Your task to perform on an android device: toggle location history Image 0: 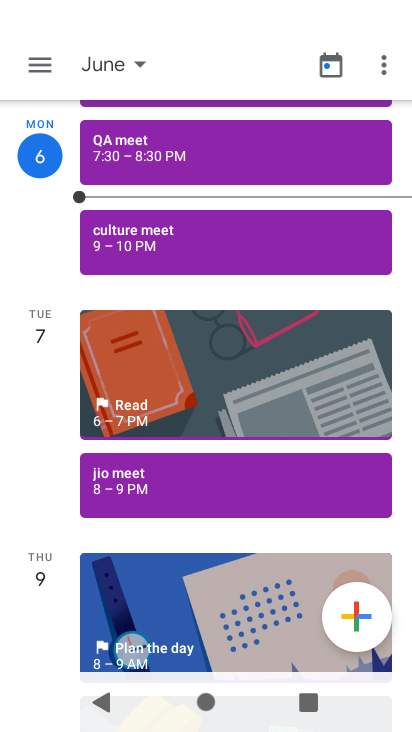
Step 0: press home button
Your task to perform on an android device: toggle location history Image 1: 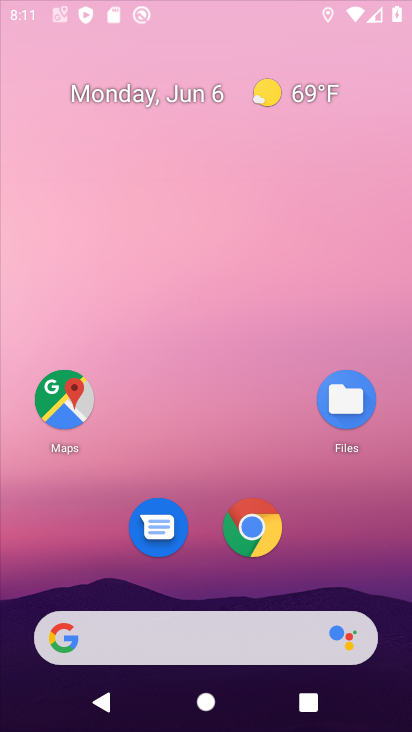
Step 1: drag from (202, 567) to (184, 66)
Your task to perform on an android device: toggle location history Image 2: 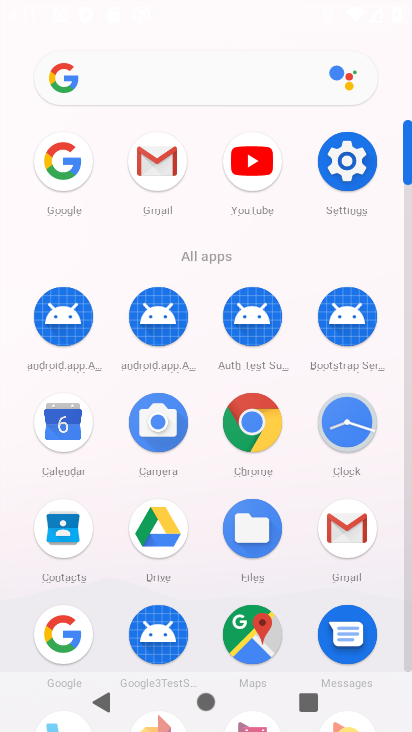
Step 2: click (349, 158)
Your task to perform on an android device: toggle location history Image 3: 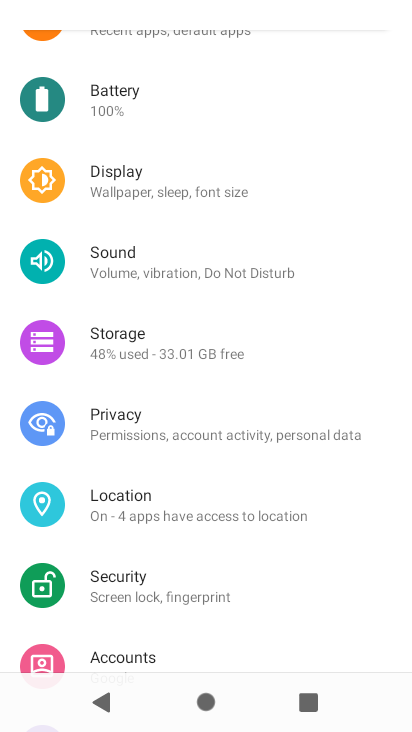
Step 3: click (160, 512)
Your task to perform on an android device: toggle location history Image 4: 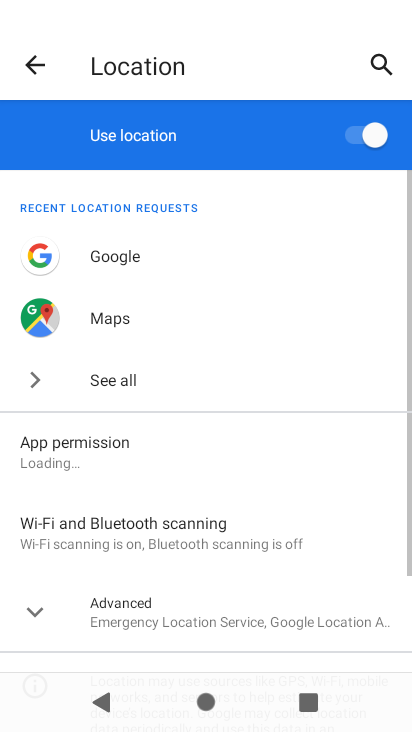
Step 4: click (171, 622)
Your task to perform on an android device: toggle location history Image 5: 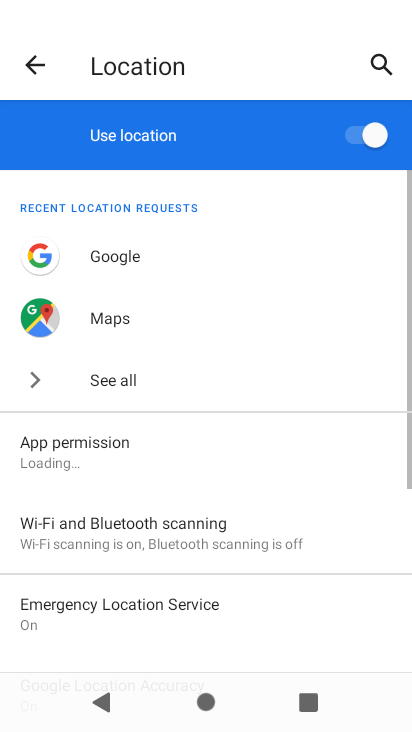
Step 5: drag from (206, 571) to (195, 216)
Your task to perform on an android device: toggle location history Image 6: 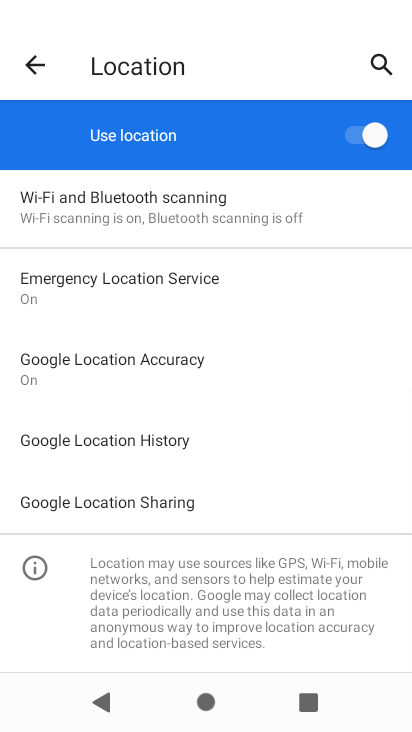
Step 6: click (125, 446)
Your task to perform on an android device: toggle location history Image 7: 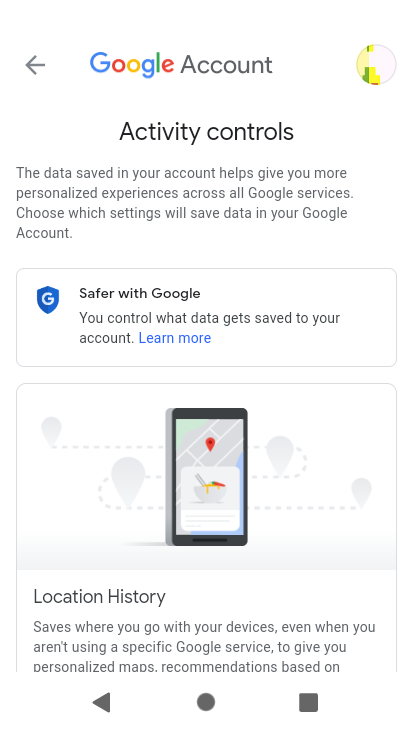
Step 7: drag from (312, 530) to (327, 97)
Your task to perform on an android device: toggle location history Image 8: 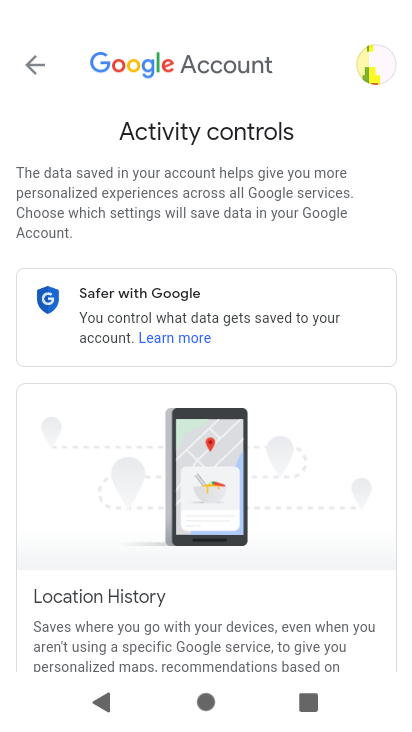
Step 8: drag from (288, 552) to (285, 164)
Your task to perform on an android device: toggle location history Image 9: 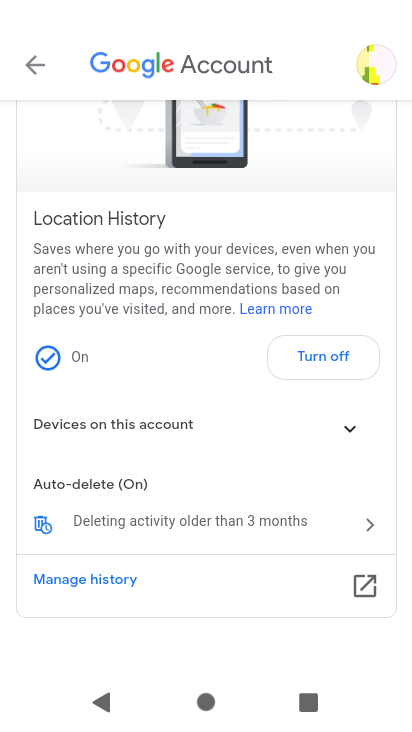
Step 9: click (325, 353)
Your task to perform on an android device: toggle location history Image 10: 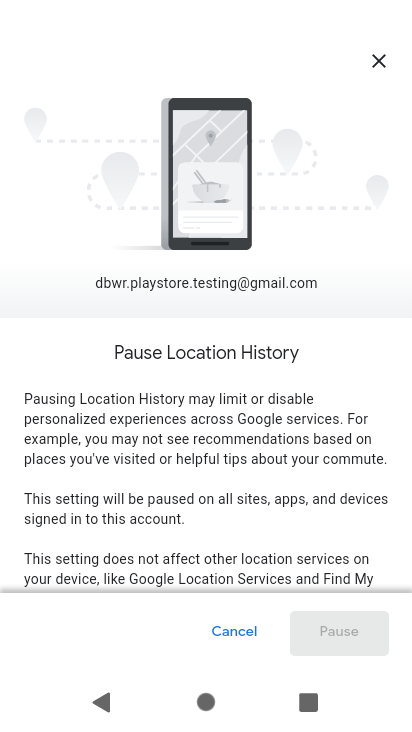
Step 10: drag from (307, 523) to (297, 8)
Your task to perform on an android device: toggle location history Image 11: 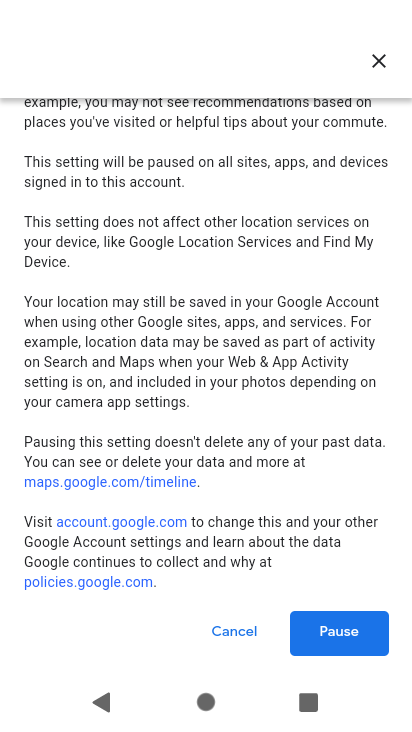
Step 11: click (332, 619)
Your task to perform on an android device: toggle location history Image 12: 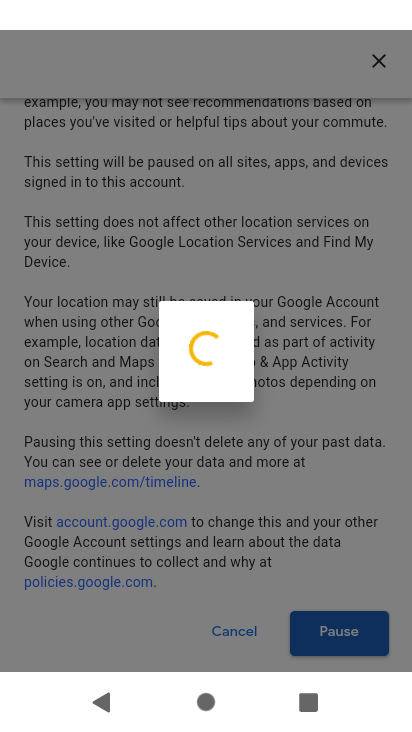
Step 12: click (336, 631)
Your task to perform on an android device: toggle location history Image 13: 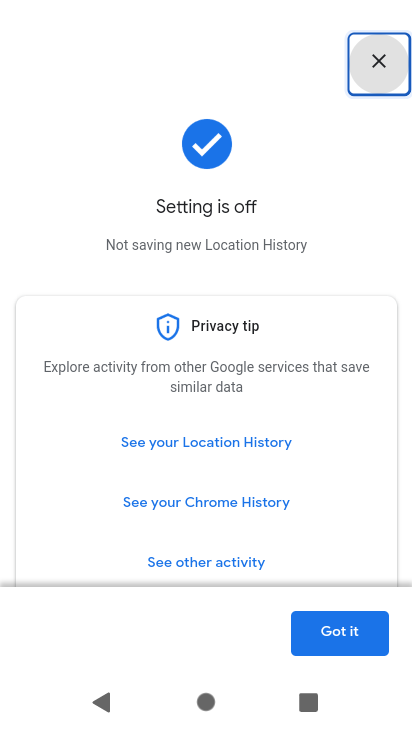
Step 13: click (336, 631)
Your task to perform on an android device: toggle location history Image 14: 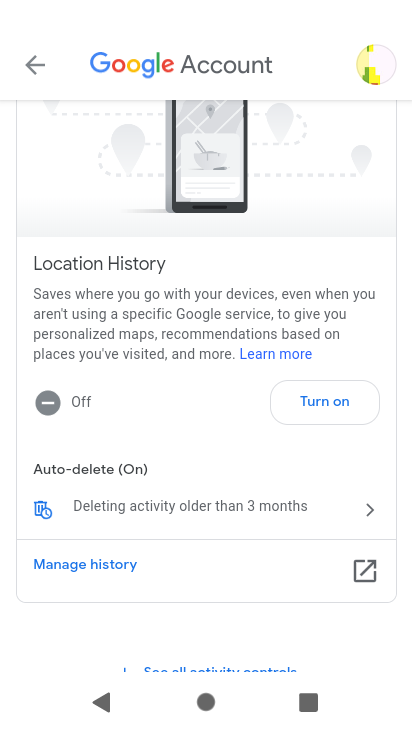
Step 14: task complete